Your task to perform on an android device: Open accessibility settings Image 0: 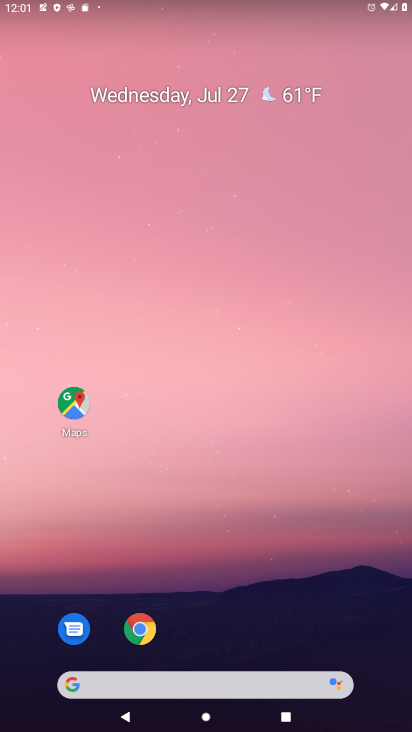
Step 0: drag from (246, 666) to (167, 87)
Your task to perform on an android device: Open accessibility settings Image 1: 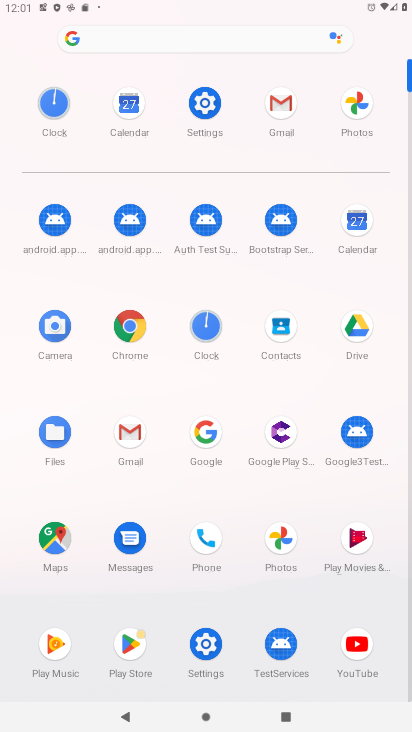
Step 1: click (184, 106)
Your task to perform on an android device: Open accessibility settings Image 2: 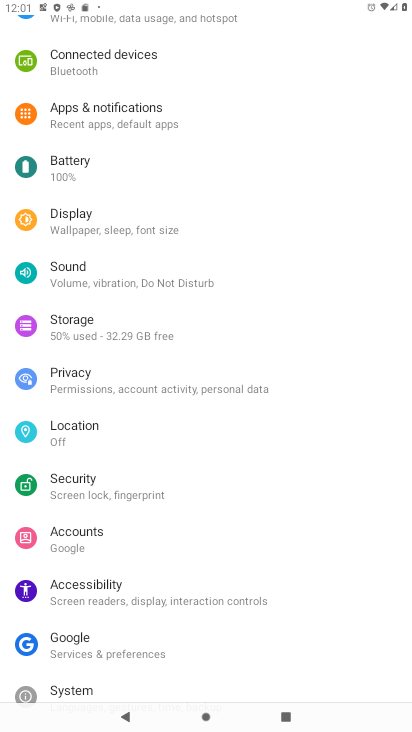
Step 2: click (120, 583)
Your task to perform on an android device: Open accessibility settings Image 3: 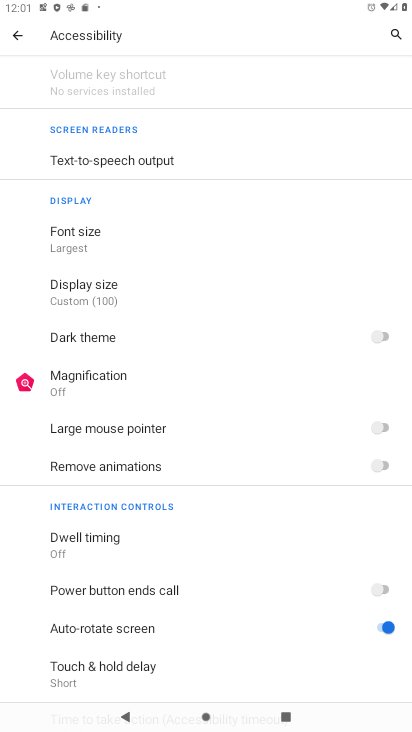
Step 3: task complete